Your task to perform on an android device: read, delete, or share a saved page in the chrome app Image 0: 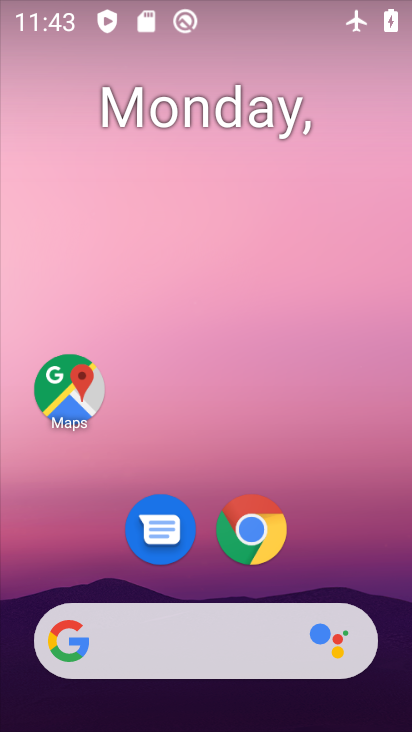
Step 0: click (251, 530)
Your task to perform on an android device: read, delete, or share a saved page in the chrome app Image 1: 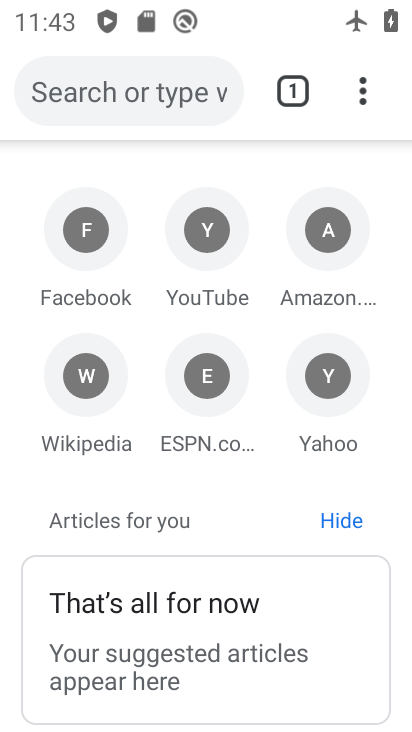
Step 1: click (366, 101)
Your task to perform on an android device: read, delete, or share a saved page in the chrome app Image 2: 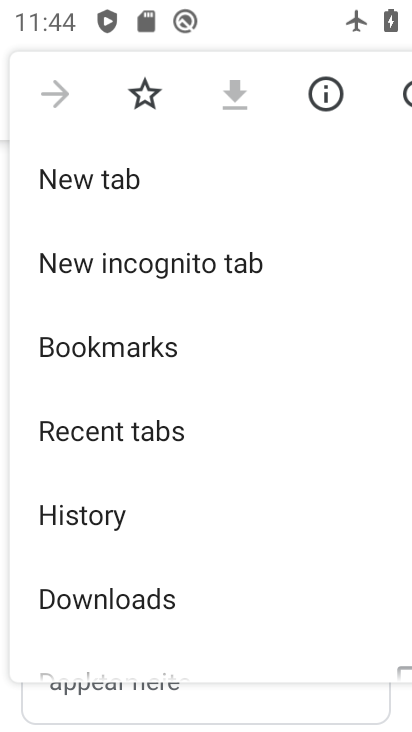
Step 2: click (111, 590)
Your task to perform on an android device: read, delete, or share a saved page in the chrome app Image 3: 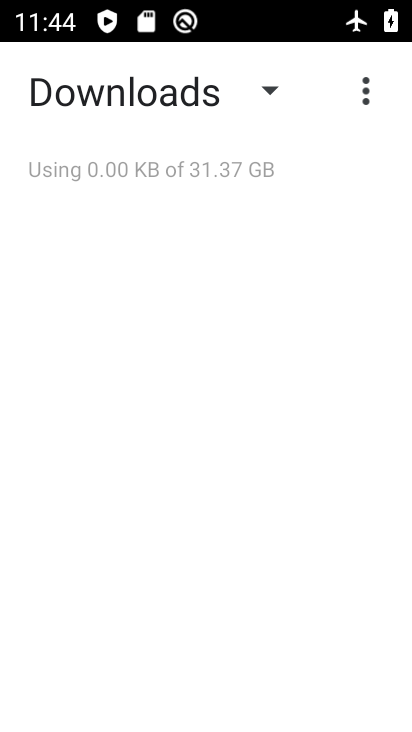
Step 3: click (272, 85)
Your task to perform on an android device: read, delete, or share a saved page in the chrome app Image 4: 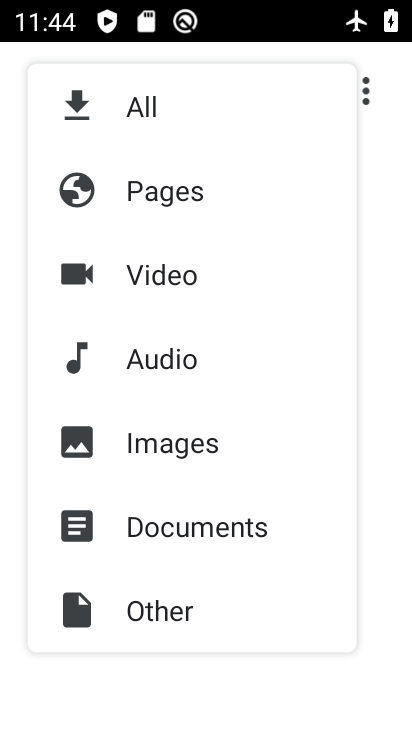
Step 4: click (156, 183)
Your task to perform on an android device: read, delete, or share a saved page in the chrome app Image 5: 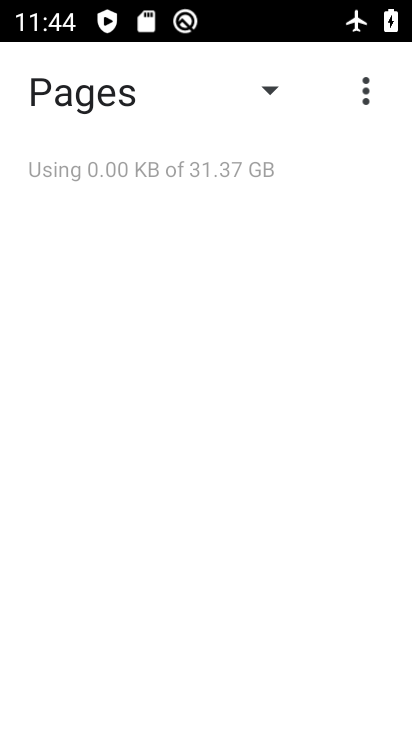
Step 5: task complete